Your task to perform on an android device: empty trash in google photos Image 0: 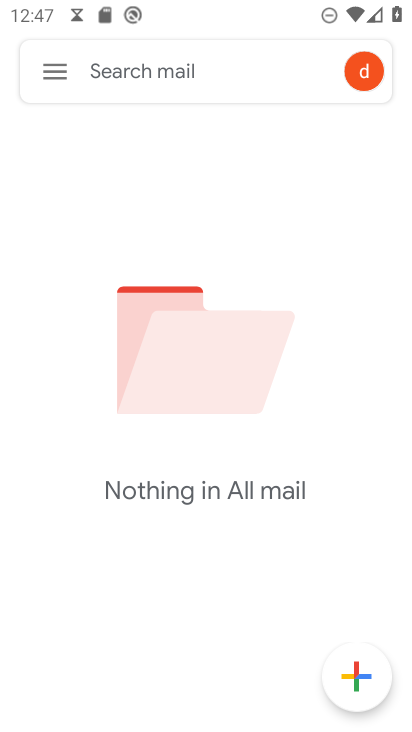
Step 0: press home button
Your task to perform on an android device: empty trash in google photos Image 1: 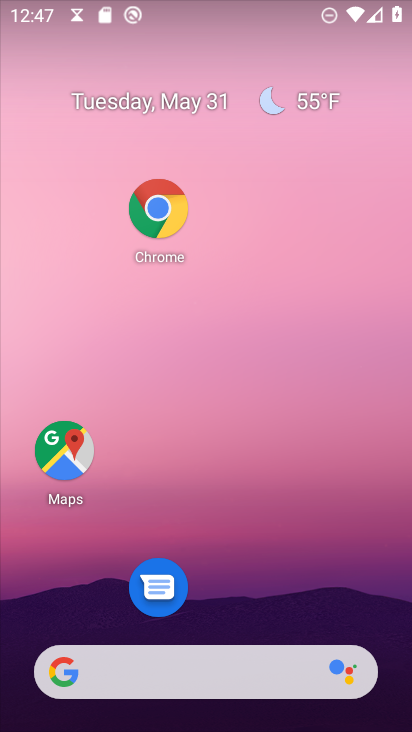
Step 1: drag from (274, 604) to (255, 259)
Your task to perform on an android device: empty trash in google photos Image 2: 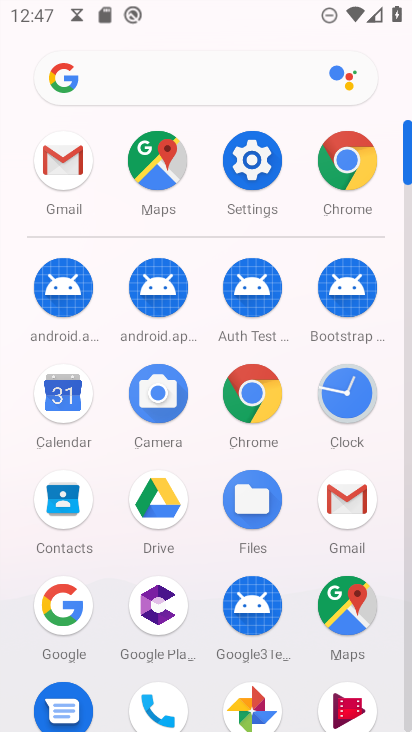
Step 2: click (235, 717)
Your task to perform on an android device: empty trash in google photos Image 3: 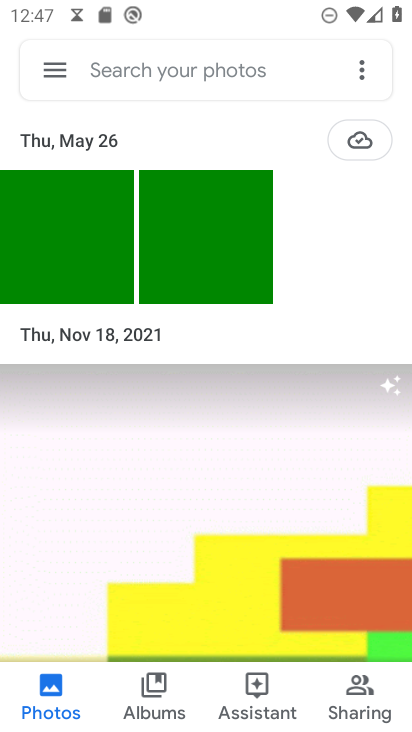
Step 3: click (58, 69)
Your task to perform on an android device: empty trash in google photos Image 4: 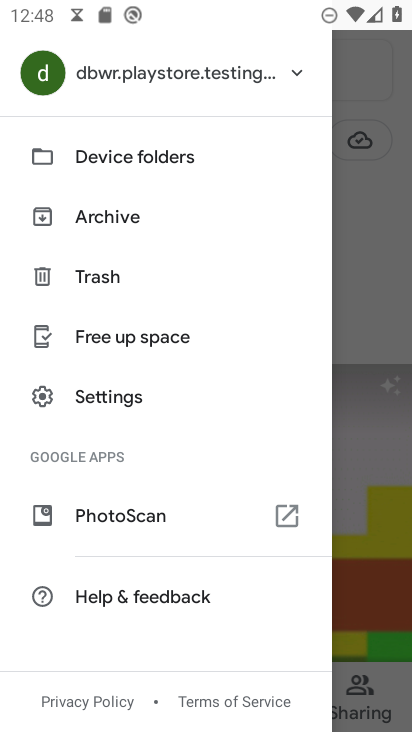
Step 4: click (85, 280)
Your task to perform on an android device: empty trash in google photos Image 5: 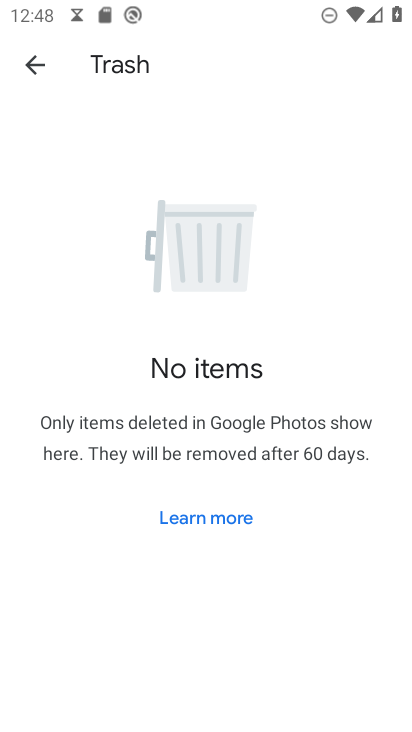
Step 5: task complete